Your task to perform on an android device: Open Google Maps Image 0: 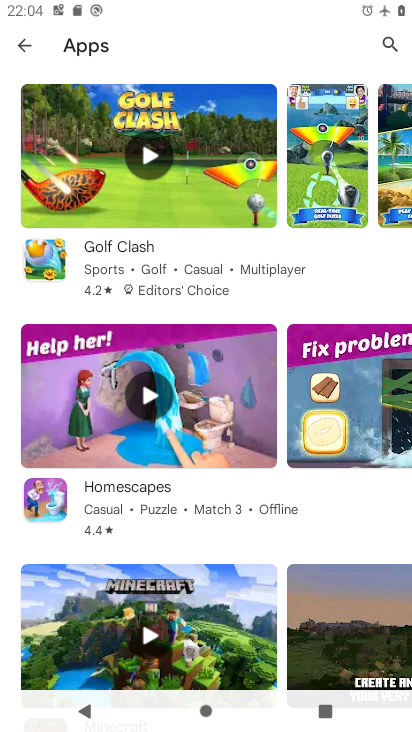
Step 0: press home button
Your task to perform on an android device: Open Google Maps Image 1: 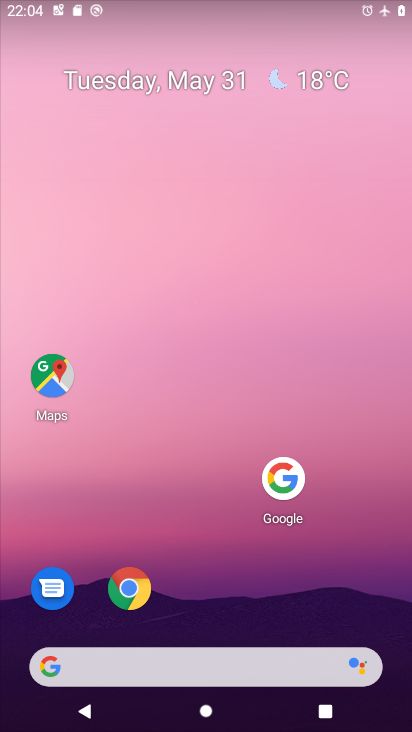
Step 1: click (55, 375)
Your task to perform on an android device: Open Google Maps Image 2: 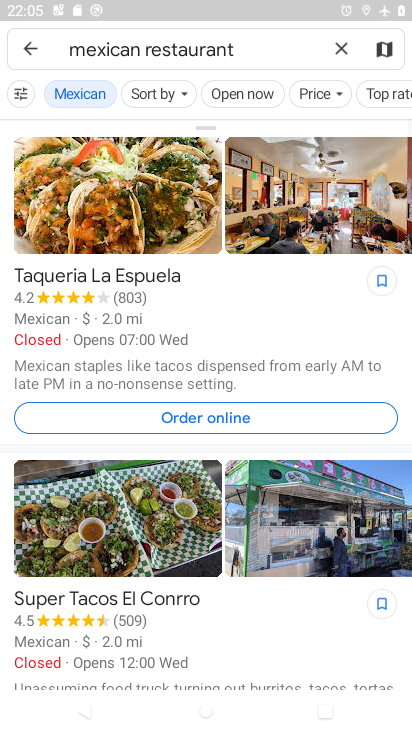
Step 2: click (38, 53)
Your task to perform on an android device: Open Google Maps Image 3: 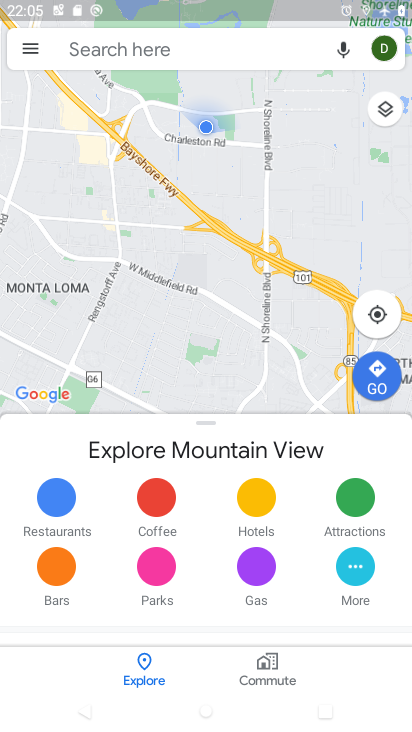
Step 3: task complete